Your task to perform on an android device: open app "Flipkart Online Shopping App" (install if not already installed), go to login, and select forgot password Image 0: 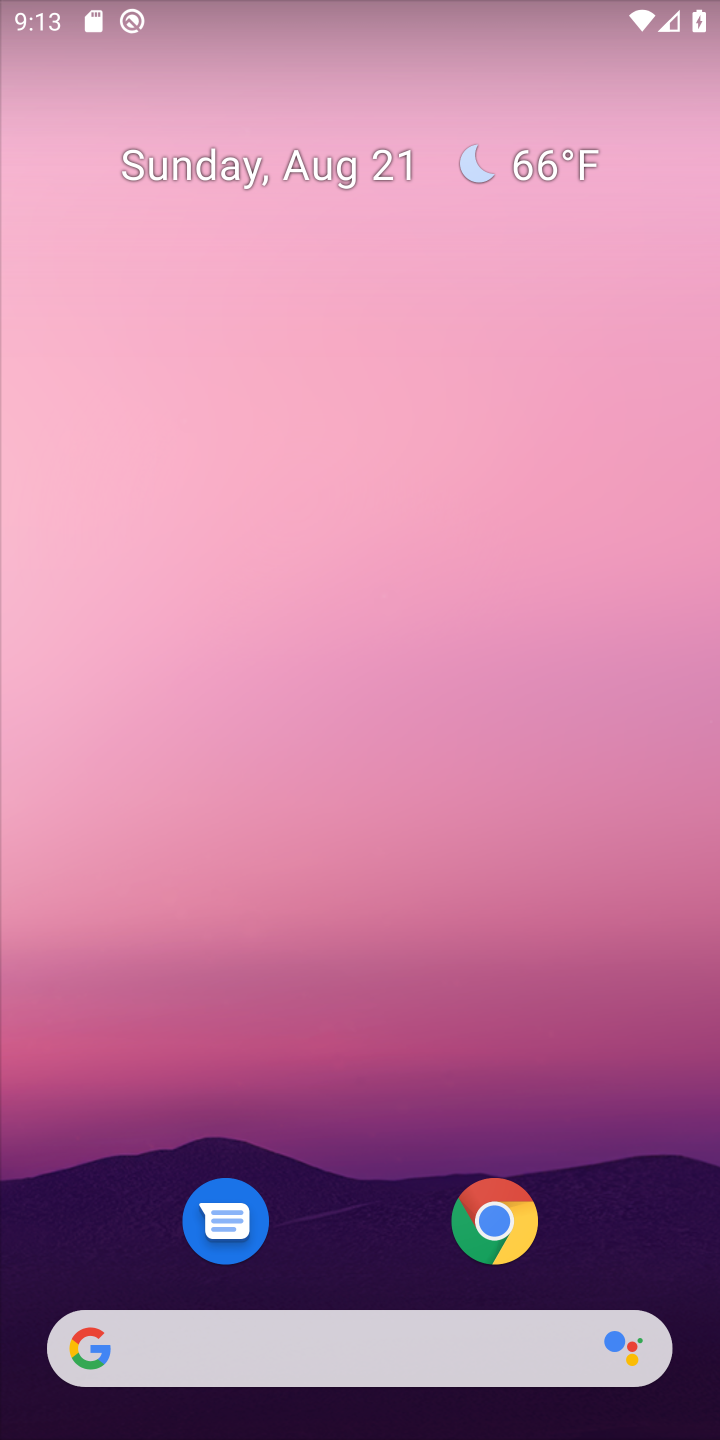
Step 0: drag from (406, 1087) to (383, 50)
Your task to perform on an android device: open app "Flipkart Online Shopping App" (install if not already installed), go to login, and select forgot password Image 1: 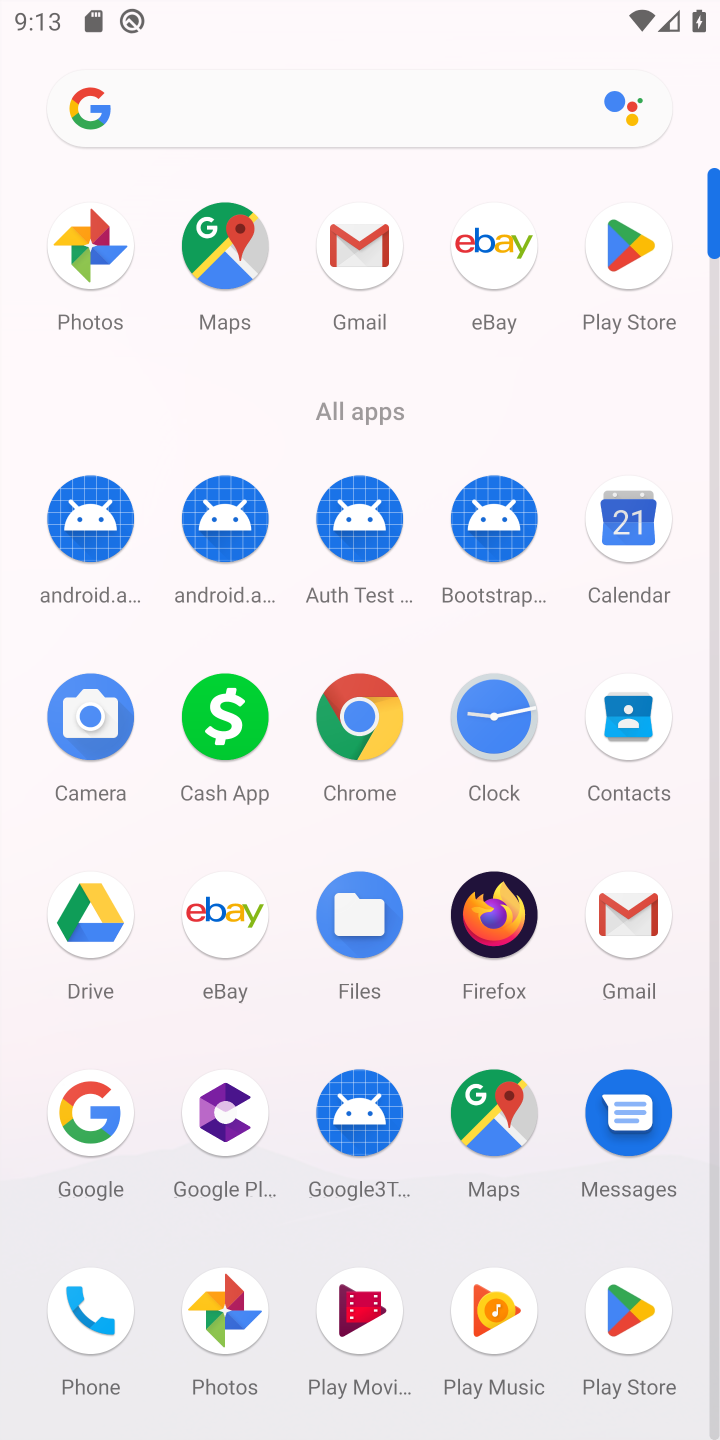
Step 1: click (600, 255)
Your task to perform on an android device: open app "Flipkart Online Shopping App" (install if not already installed), go to login, and select forgot password Image 2: 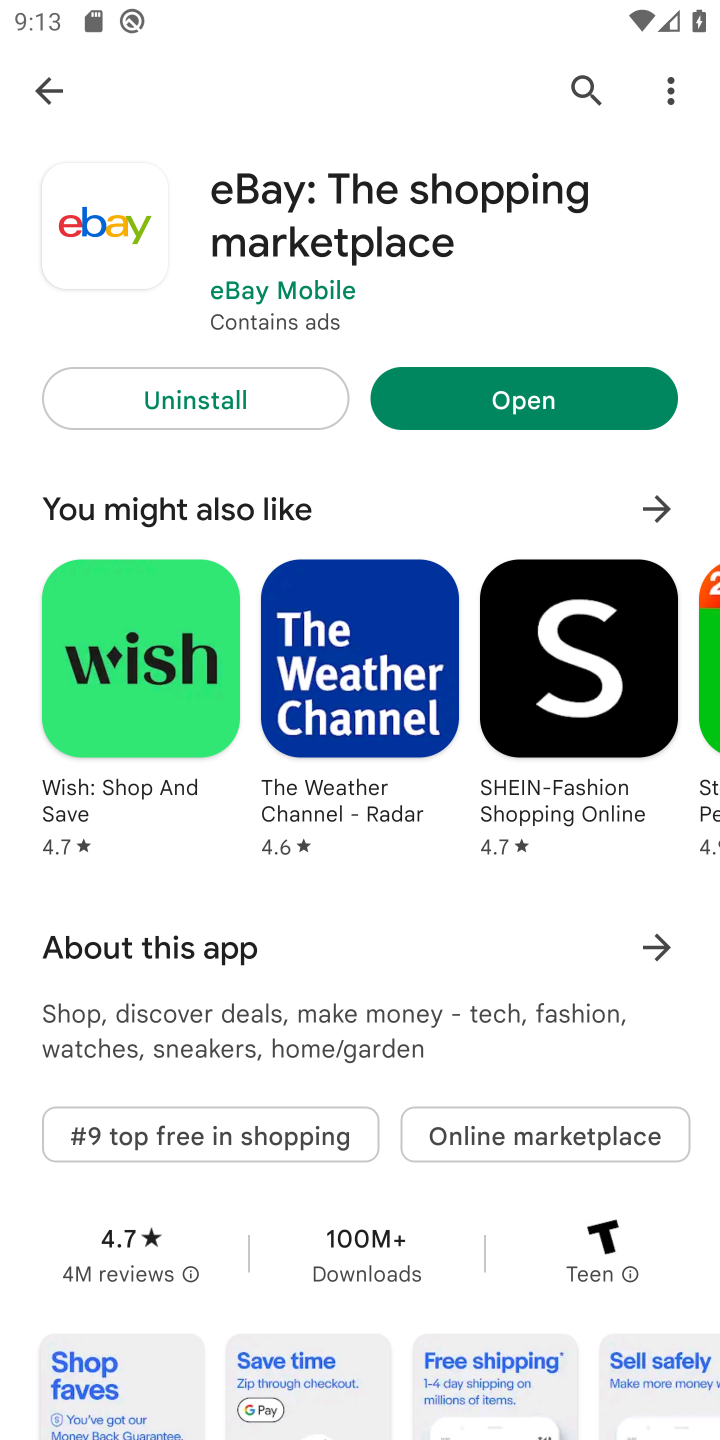
Step 2: click (575, 98)
Your task to perform on an android device: open app "Flipkart Online Shopping App" (install if not already installed), go to login, and select forgot password Image 3: 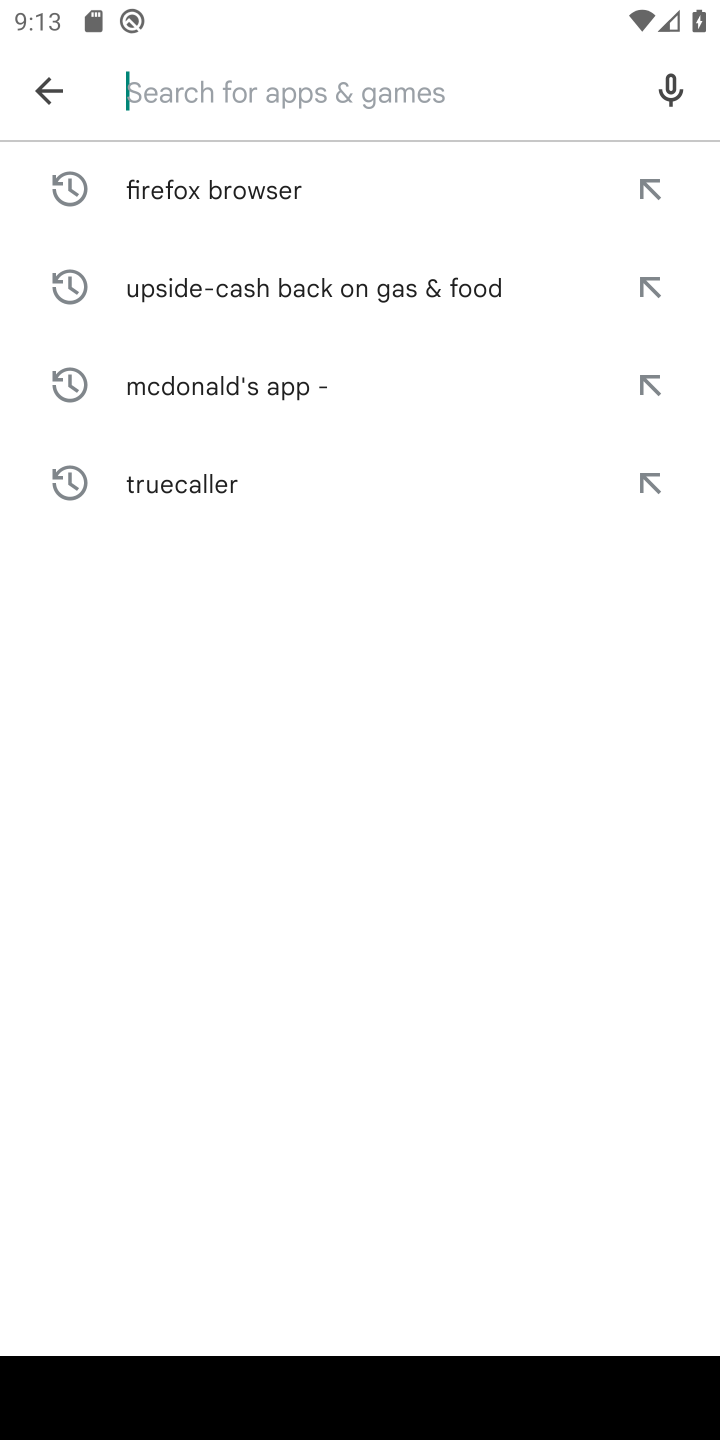
Step 3: type "Flipkart Online Shopping App"
Your task to perform on an android device: open app "Flipkart Online Shopping App" (install if not already installed), go to login, and select forgot password Image 4: 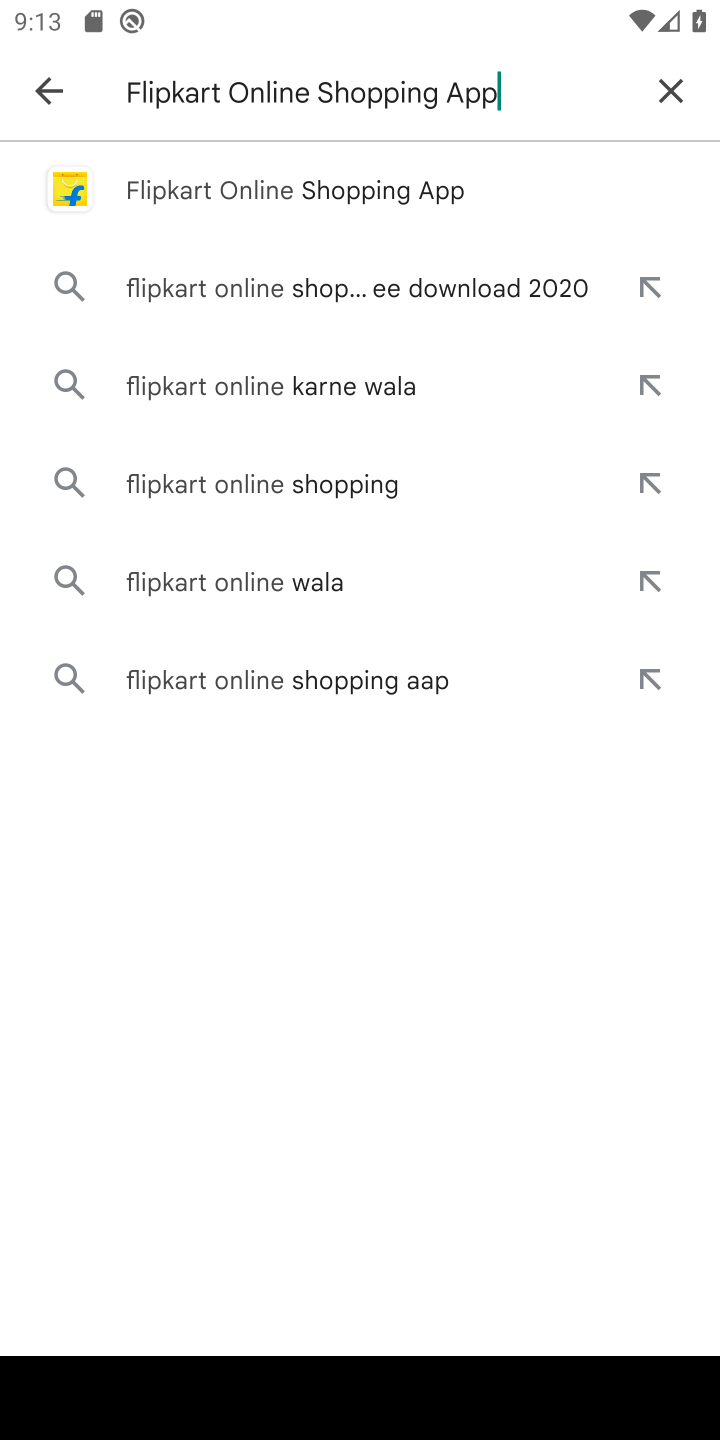
Step 4: type ""
Your task to perform on an android device: open app "Flipkart Online Shopping App" (install if not already installed), go to login, and select forgot password Image 5: 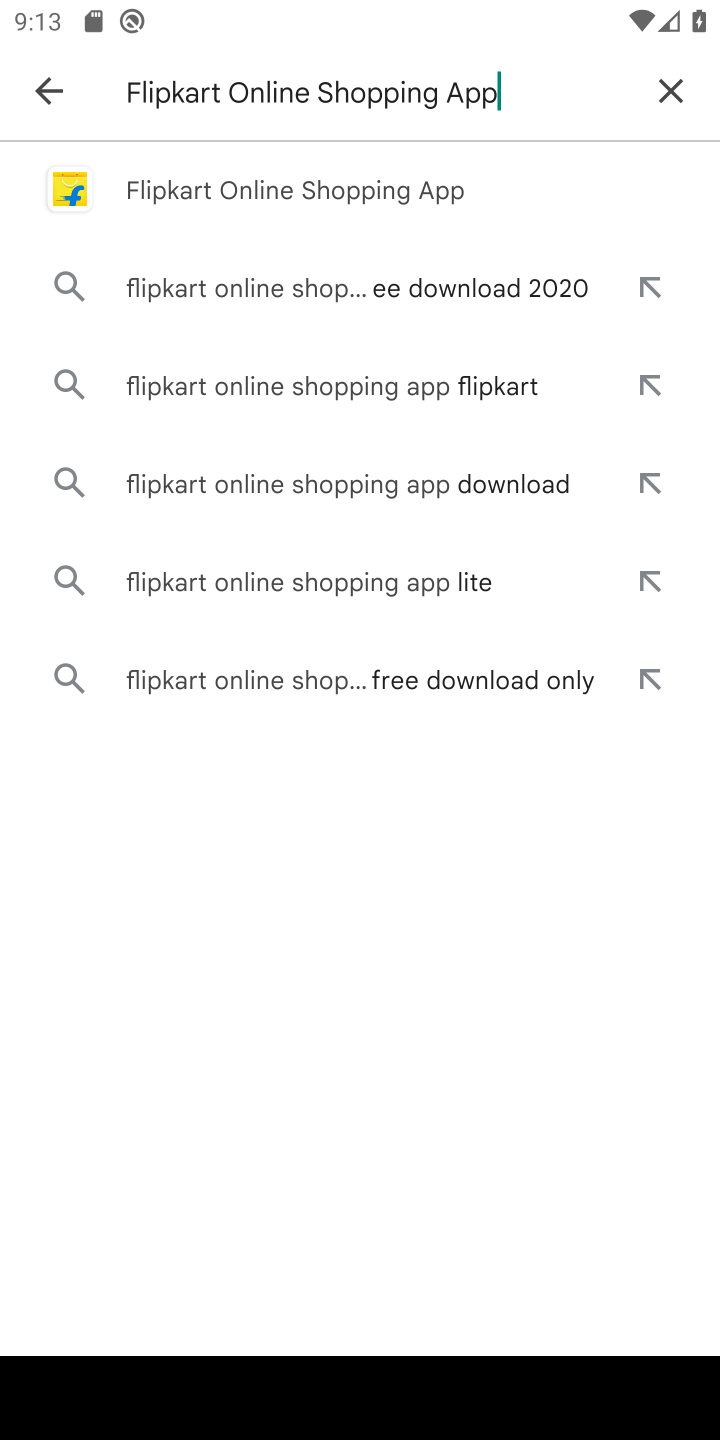
Step 5: click (339, 196)
Your task to perform on an android device: open app "Flipkart Online Shopping App" (install if not already installed), go to login, and select forgot password Image 6: 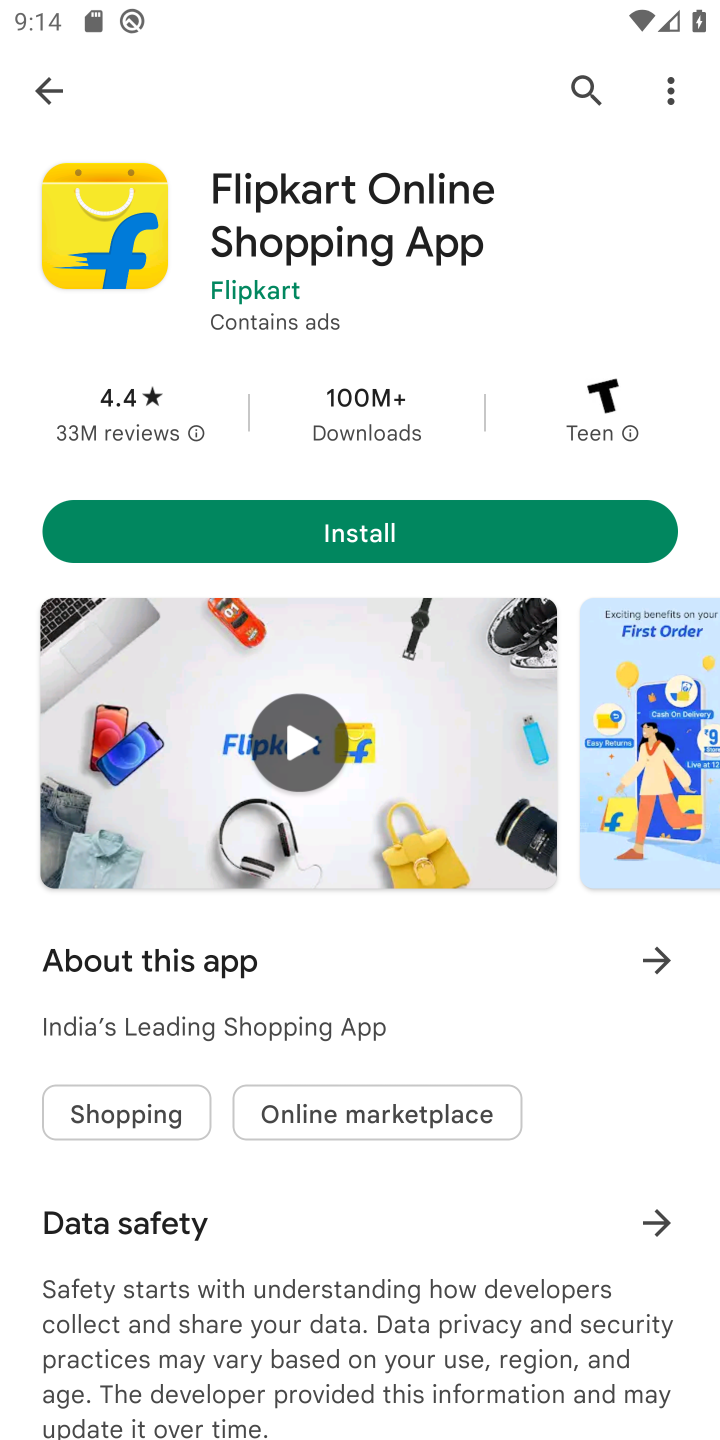
Step 6: click (509, 546)
Your task to perform on an android device: open app "Flipkart Online Shopping App" (install if not already installed), go to login, and select forgot password Image 7: 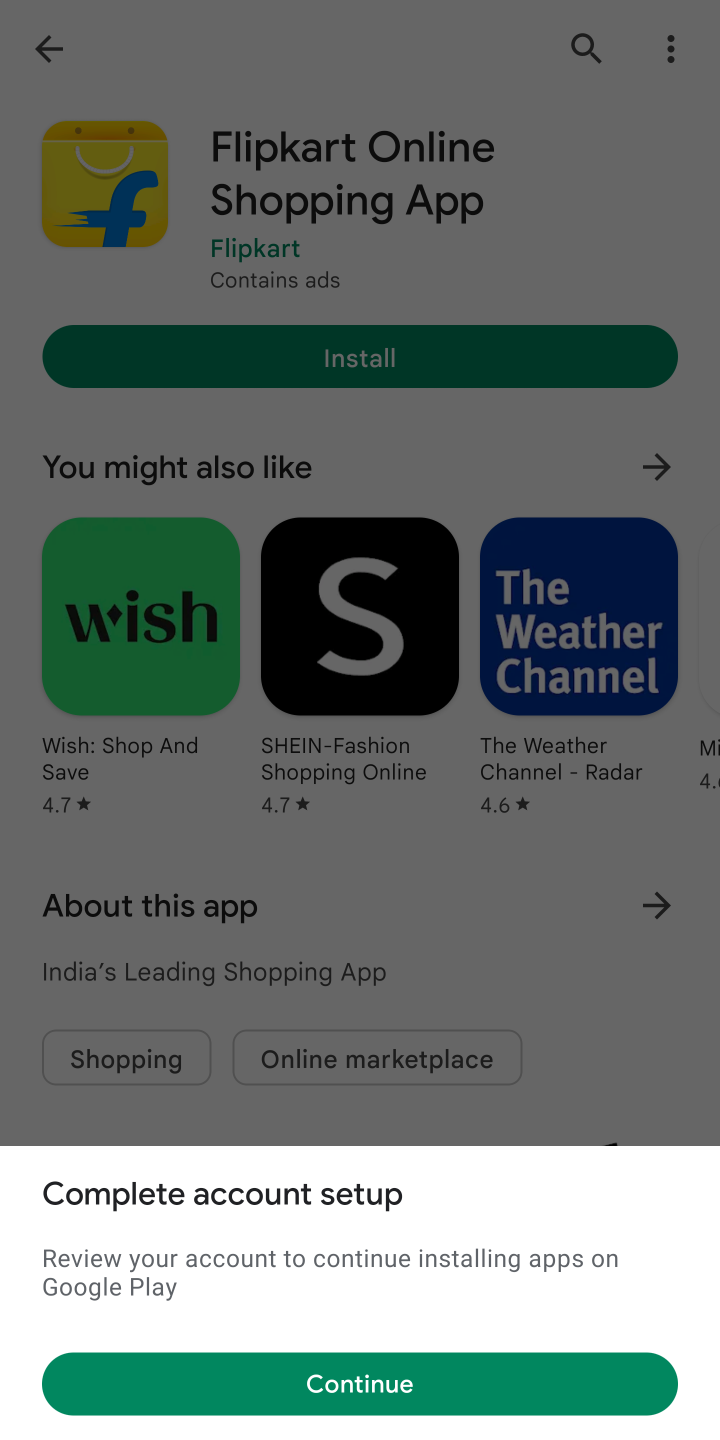
Step 7: click (505, 1383)
Your task to perform on an android device: open app "Flipkart Online Shopping App" (install if not already installed), go to login, and select forgot password Image 8: 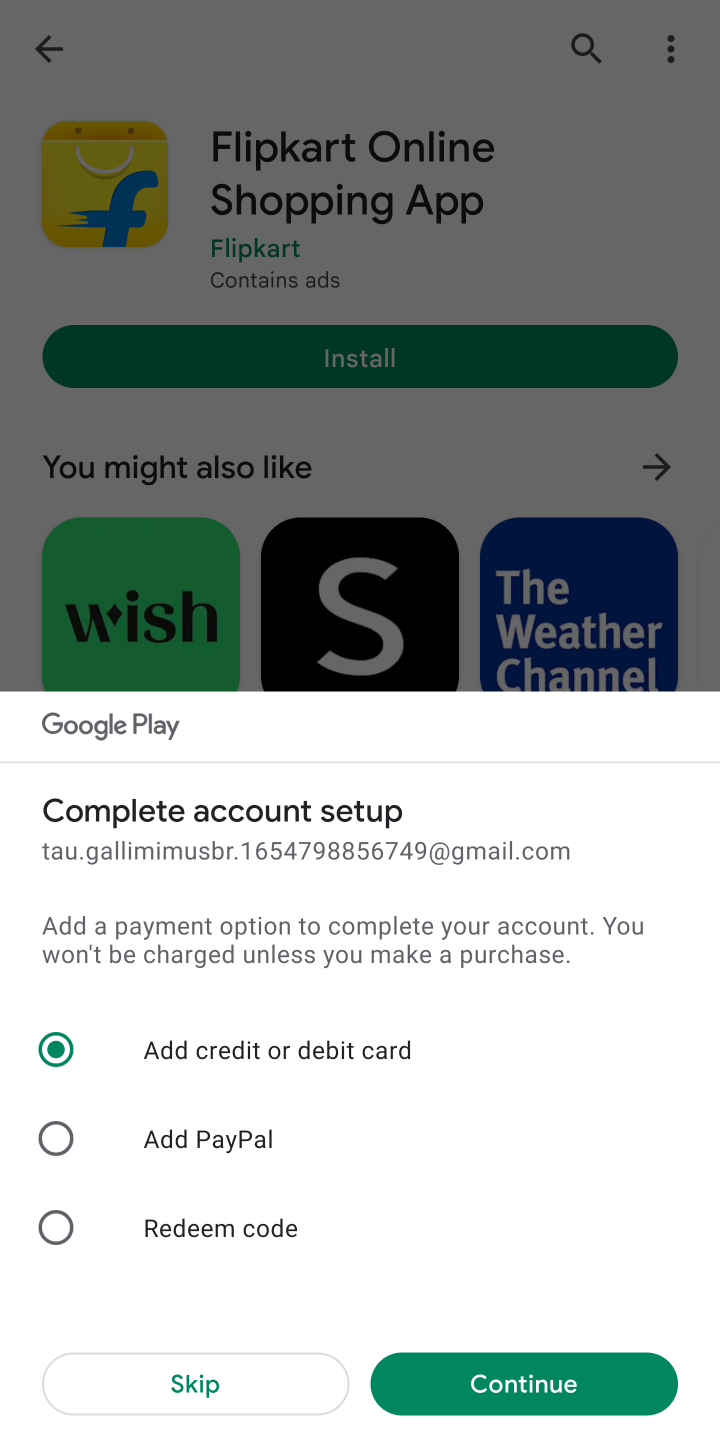
Step 8: click (201, 1379)
Your task to perform on an android device: open app "Flipkart Online Shopping App" (install if not already installed), go to login, and select forgot password Image 9: 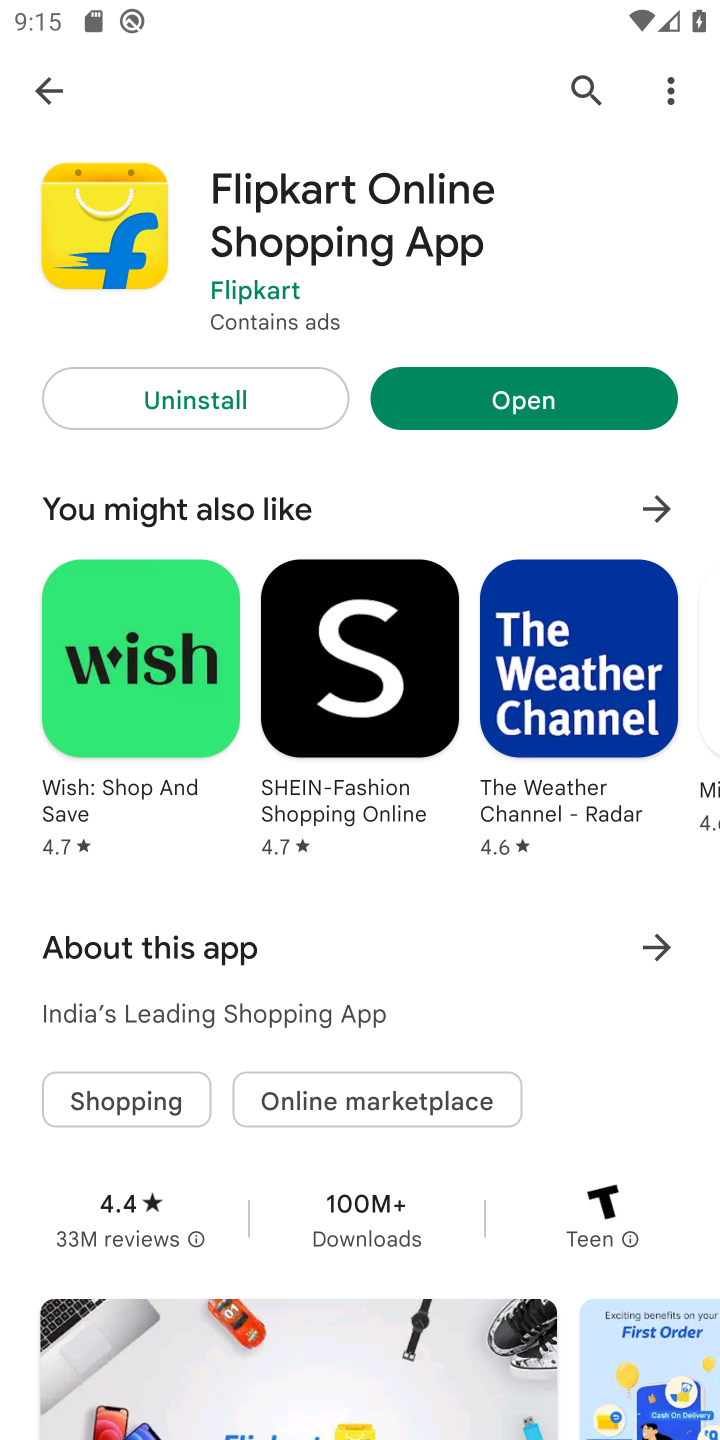
Step 9: click (512, 381)
Your task to perform on an android device: open app "Flipkart Online Shopping App" (install if not already installed), go to login, and select forgot password Image 10: 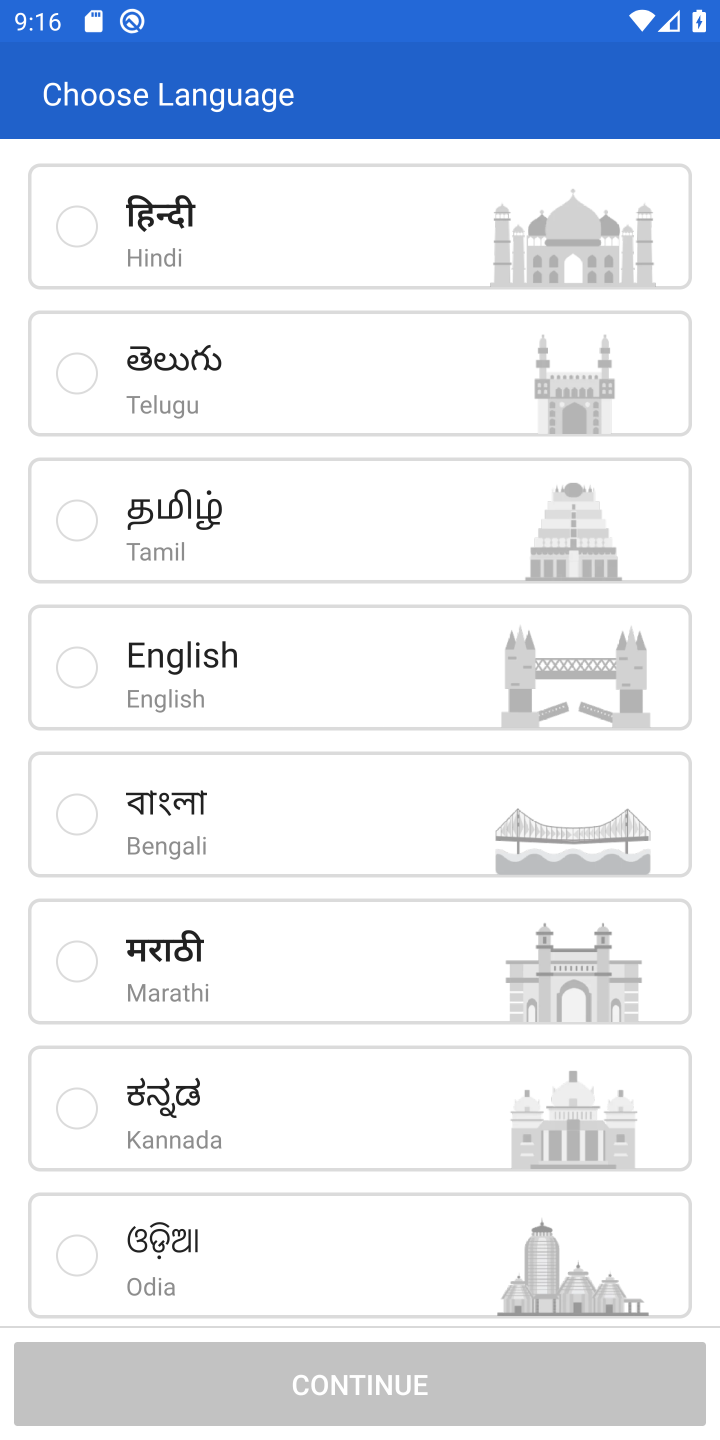
Step 10: task complete